Your task to perform on an android device: Go to privacy settings Image 0: 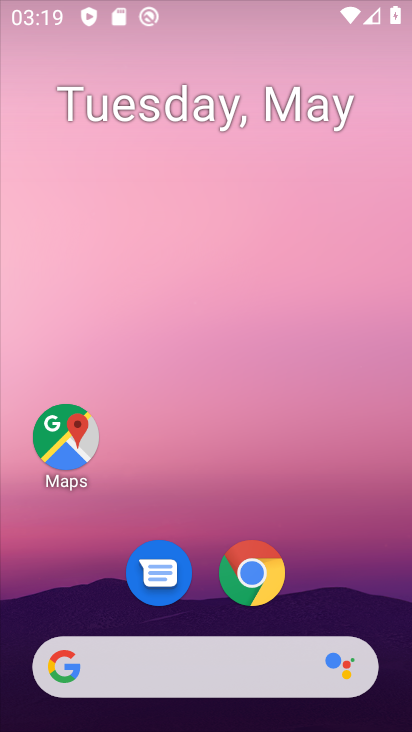
Step 0: drag from (194, 507) to (301, 23)
Your task to perform on an android device: Go to privacy settings Image 1: 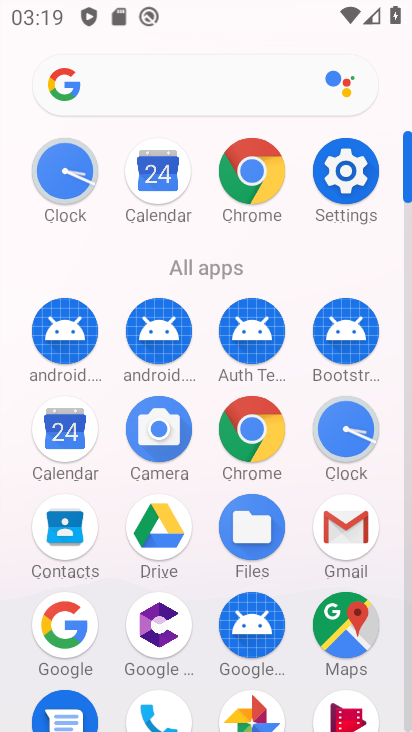
Step 1: click (379, 159)
Your task to perform on an android device: Go to privacy settings Image 2: 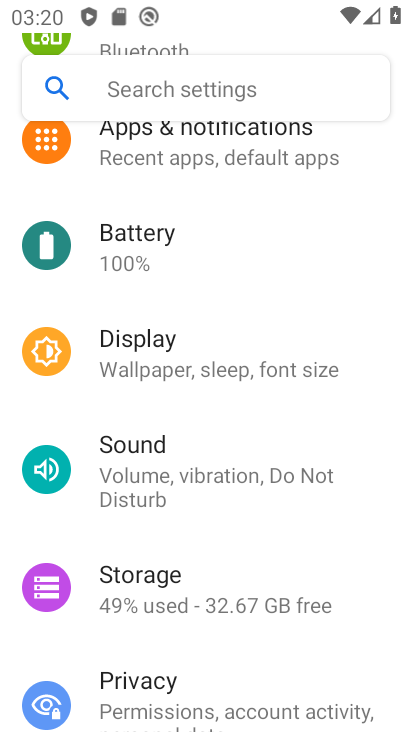
Step 2: click (196, 713)
Your task to perform on an android device: Go to privacy settings Image 3: 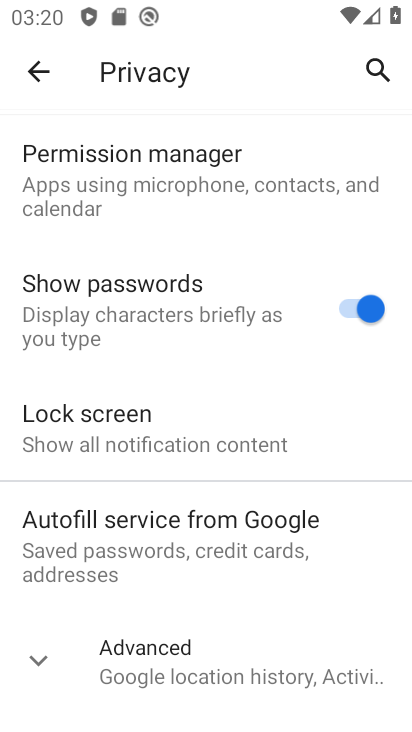
Step 3: task complete